Your task to perform on an android device: open app "LiveIn - Share Your Moment" (install if not already installed) Image 0: 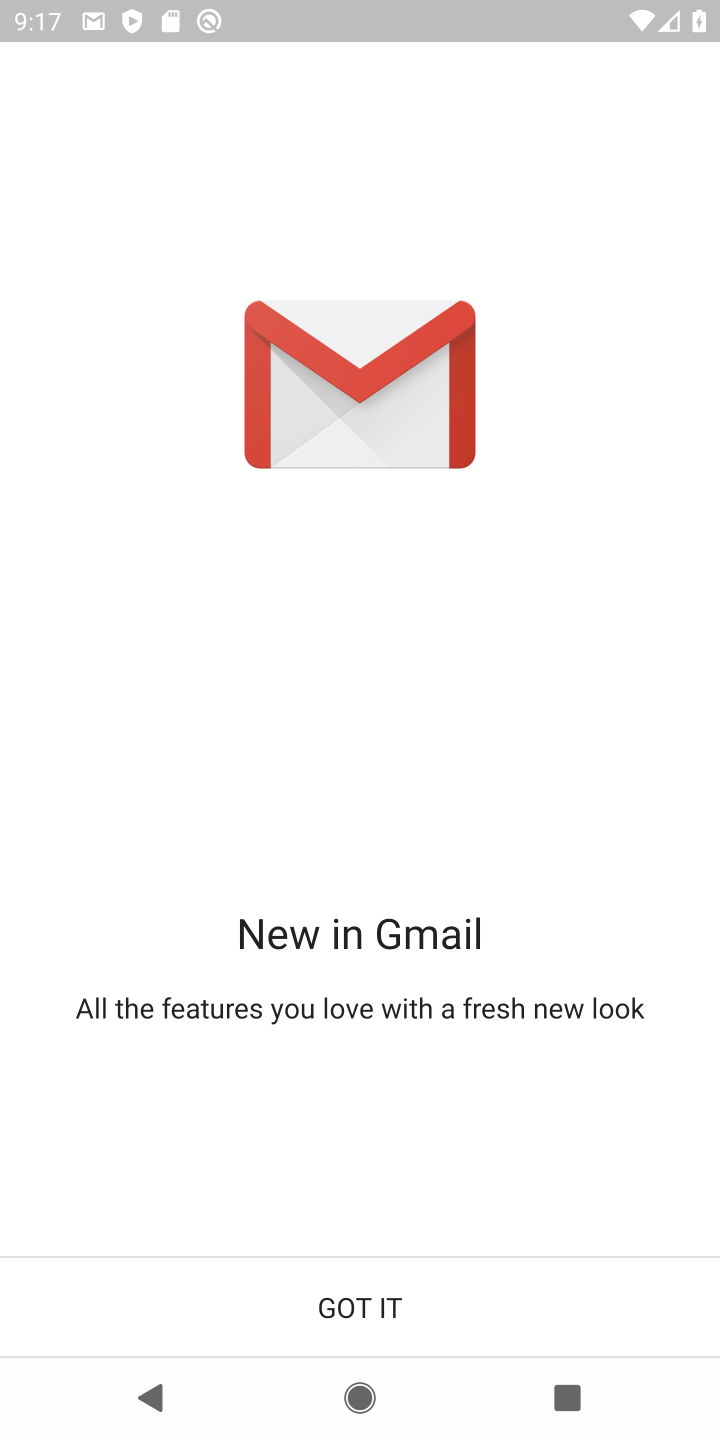
Step 0: press home button
Your task to perform on an android device: open app "LiveIn - Share Your Moment" (install if not already installed) Image 1: 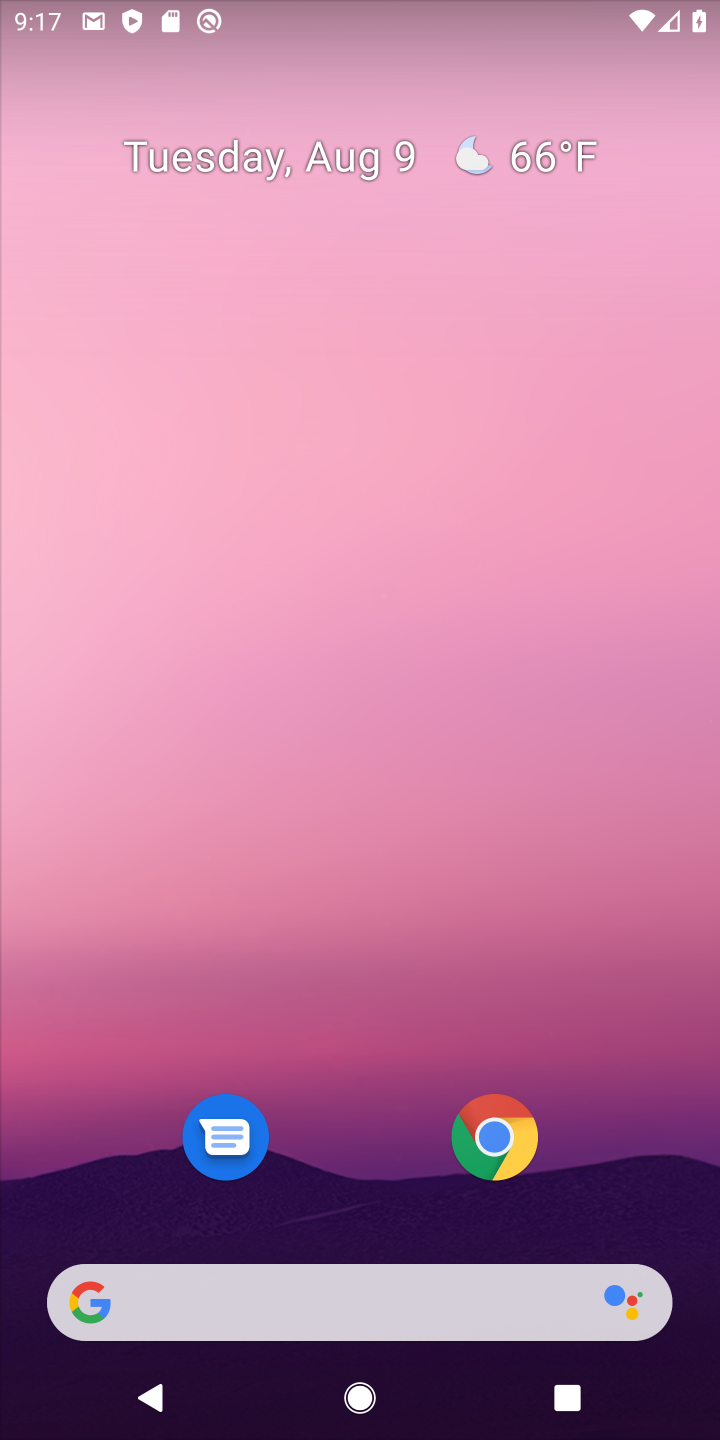
Step 1: drag from (331, 1138) to (375, 328)
Your task to perform on an android device: open app "LiveIn - Share Your Moment" (install if not already installed) Image 2: 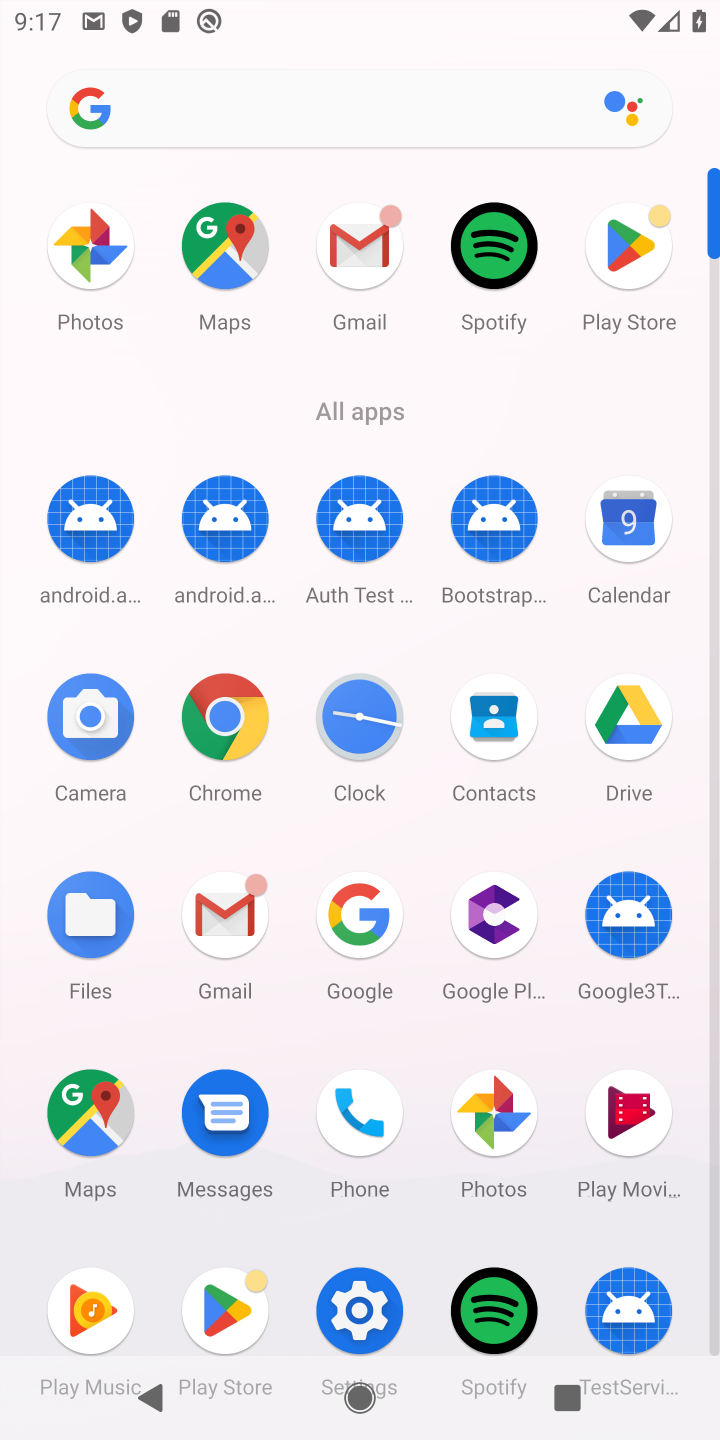
Step 2: click (645, 253)
Your task to perform on an android device: open app "LiveIn - Share Your Moment" (install if not already installed) Image 3: 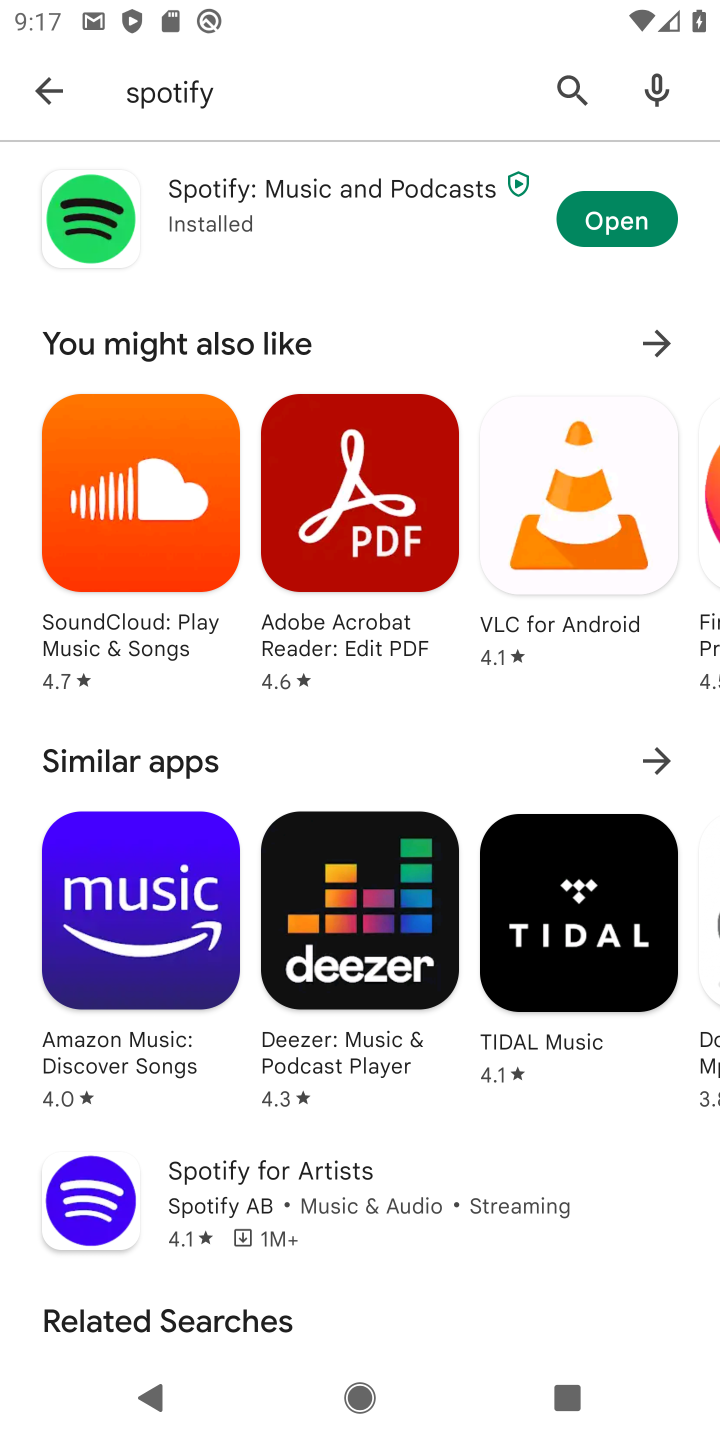
Step 3: click (568, 87)
Your task to perform on an android device: open app "LiveIn - Share Your Moment" (install if not already installed) Image 4: 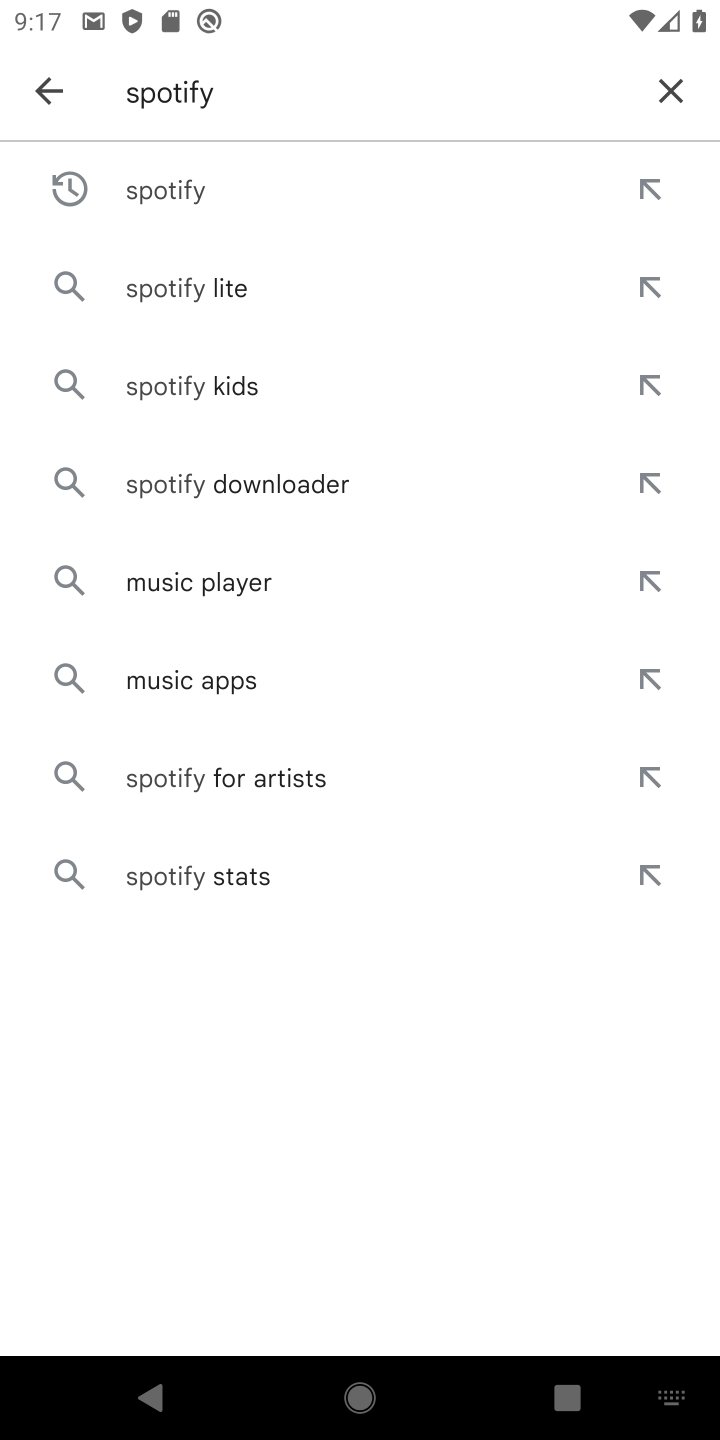
Step 4: click (691, 90)
Your task to perform on an android device: open app "LiveIn - Share Your Moment" (install if not already installed) Image 5: 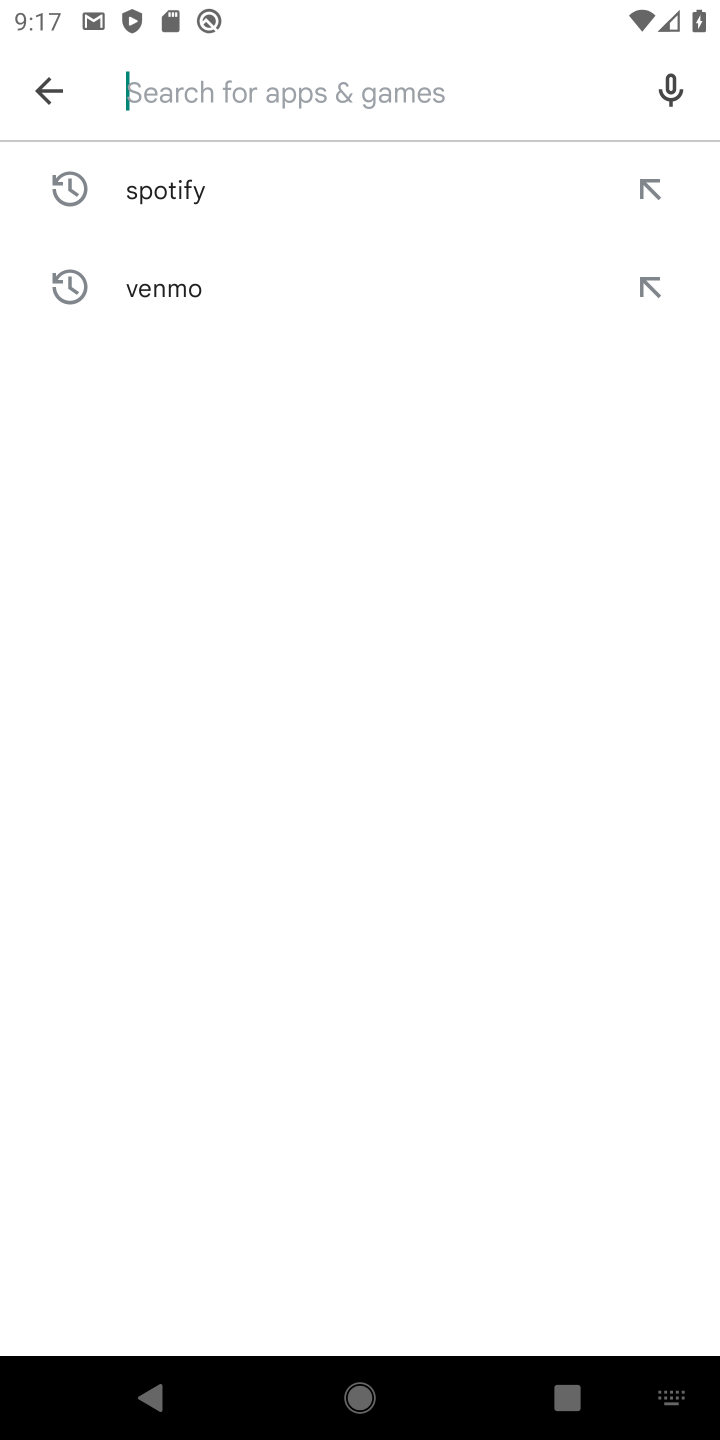
Step 5: type "LiveIn - Share Your Moment"
Your task to perform on an android device: open app "LiveIn - Share Your Moment" (install if not already installed) Image 6: 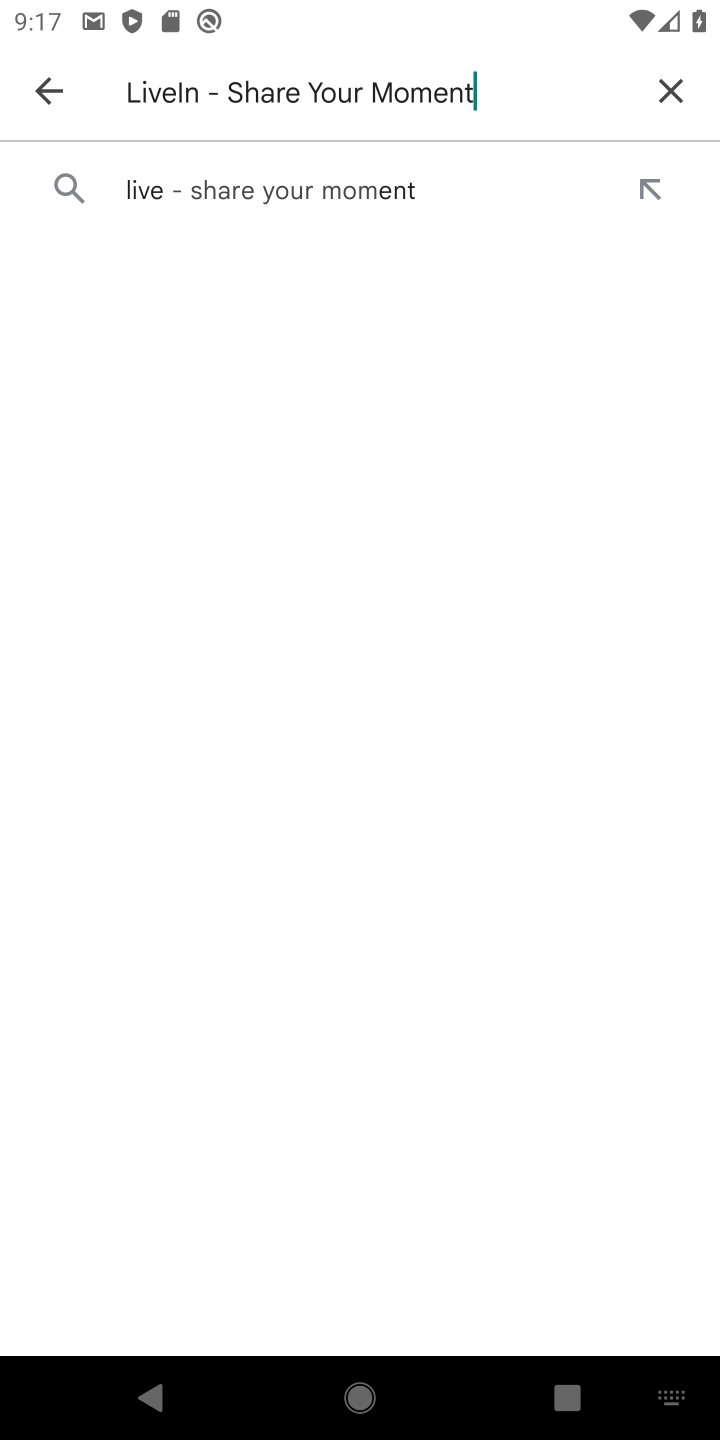
Step 6: type ""
Your task to perform on an android device: open app "LiveIn - Share Your Moment" (install if not already installed) Image 7: 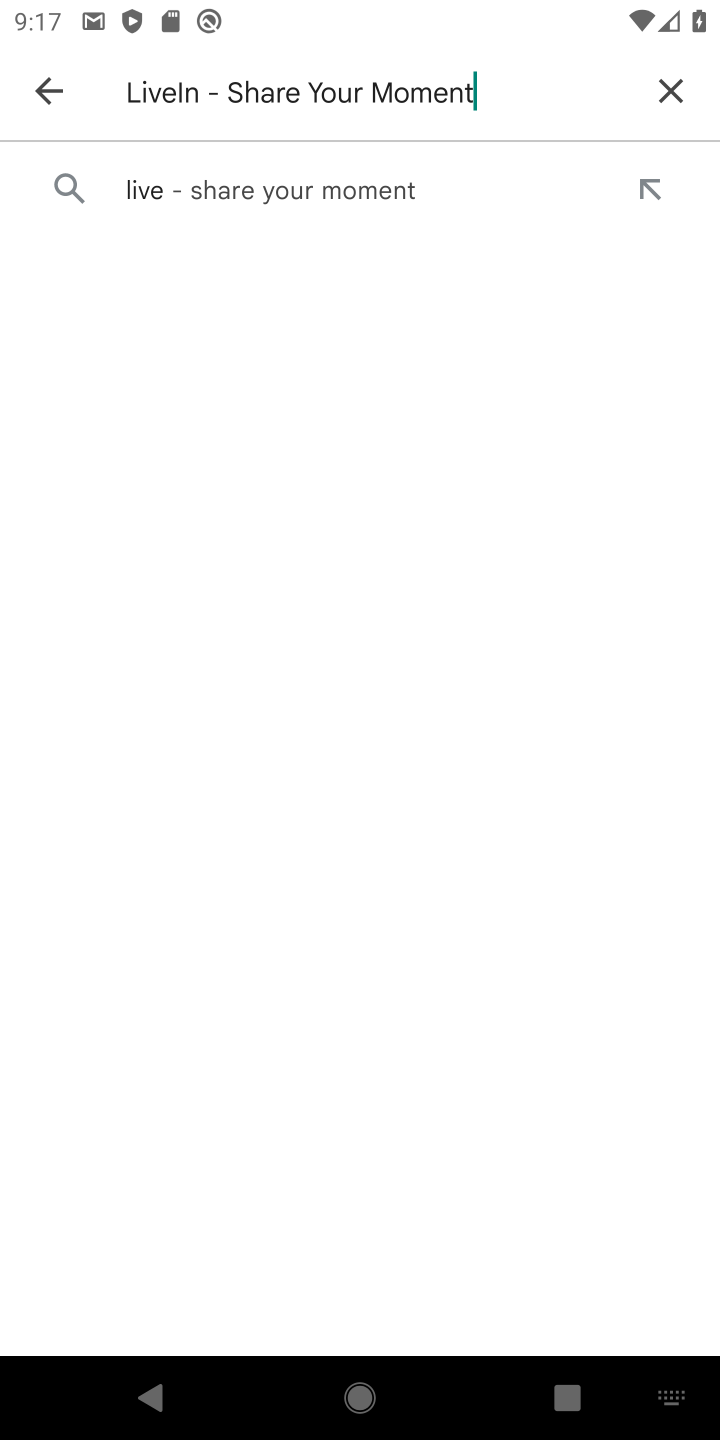
Step 7: click (359, 177)
Your task to perform on an android device: open app "LiveIn - Share Your Moment" (install if not already installed) Image 8: 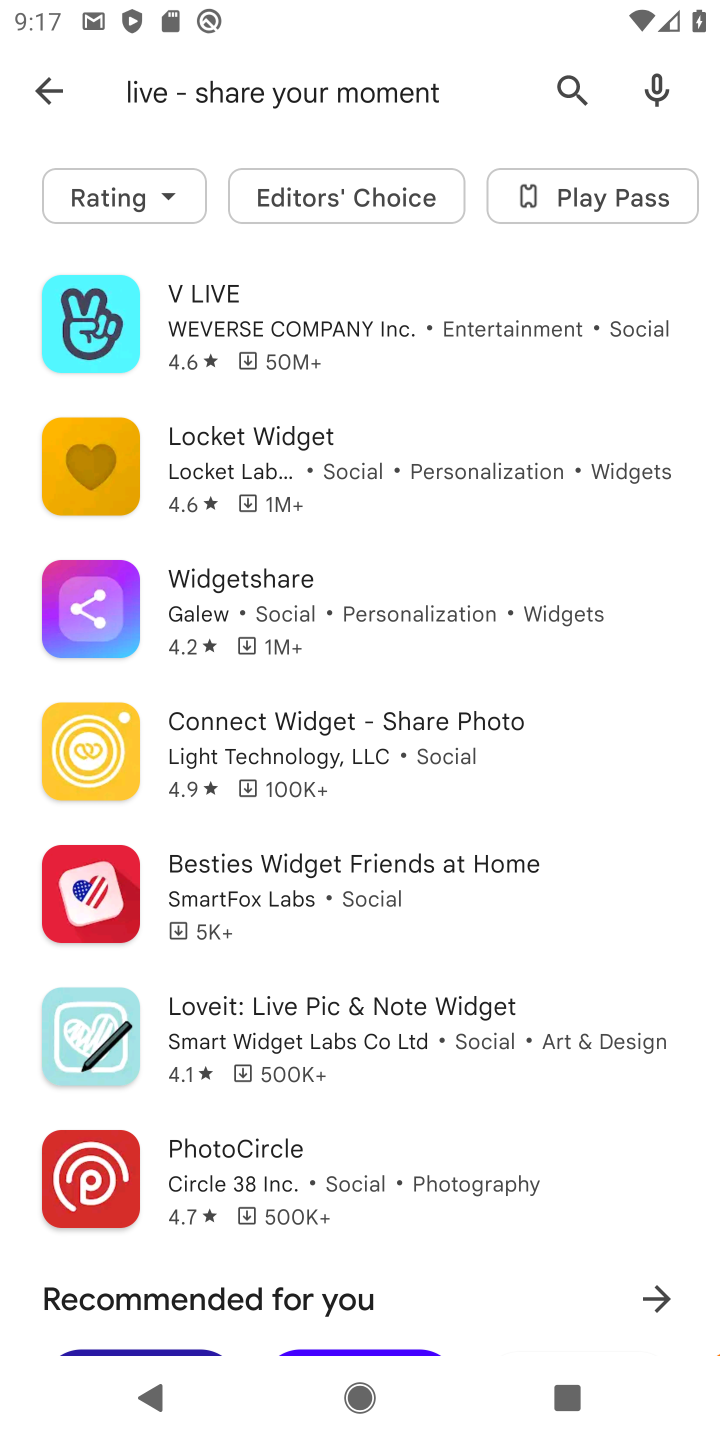
Step 8: task complete